Your task to perform on an android device: allow notifications from all sites in the chrome app Image 0: 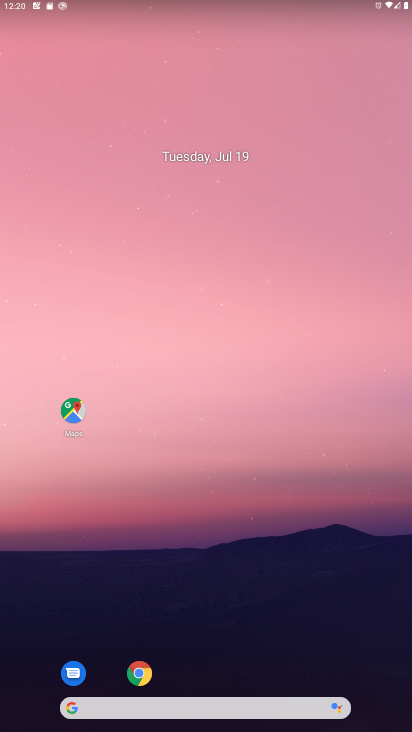
Step 0: click (144, 661)
Your task to perform on an android device: allow notifications from all sites in the chrome app Image 1: 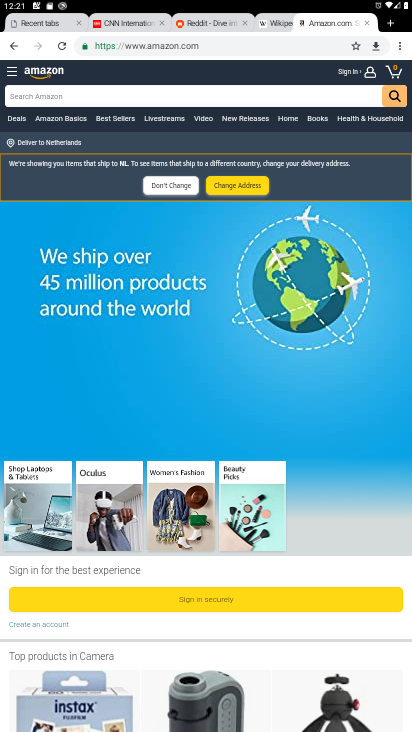
Step 1: press home button
Your task to perform on an android device: allow notifications from all sites in the chrome app Image 2: 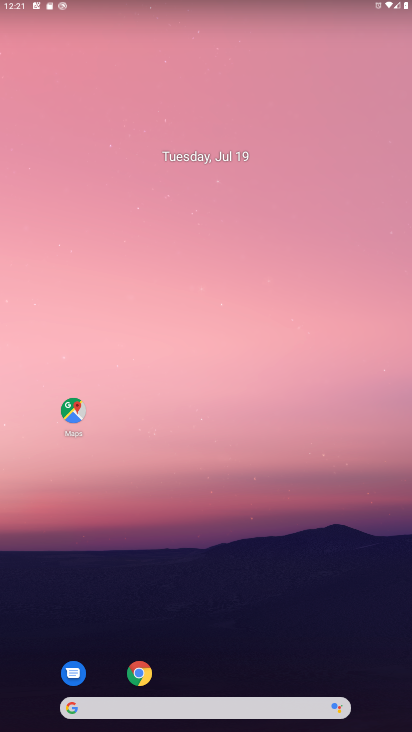
Step 2: click (145, 669)
Your task to perform on an android device: allow notifications from all sites in the chrome app Image 3: 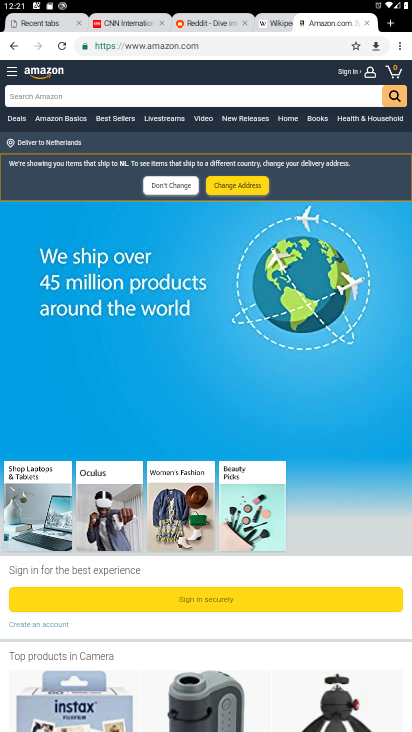
Step 3: click (394, 43)
Your task to perform on an android device: allow notifications from all sites in the chrome app Image 4: 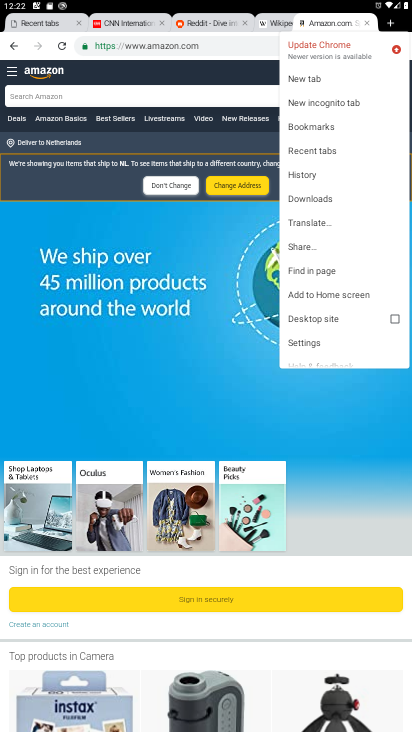
Step 4: click (318, 338)
Your task to perform on an android device: allow notifications from all sites in the chrome app Image 5: 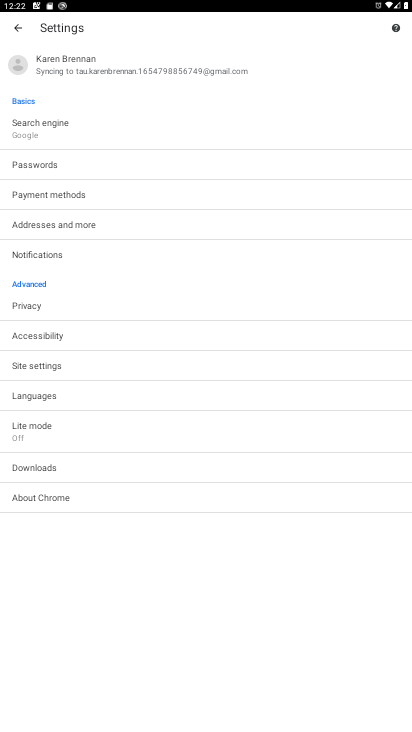
Step 5: click (89, 361)
Your task to perform on an android device: allow notifications from all sites in the chrome app Image 6: 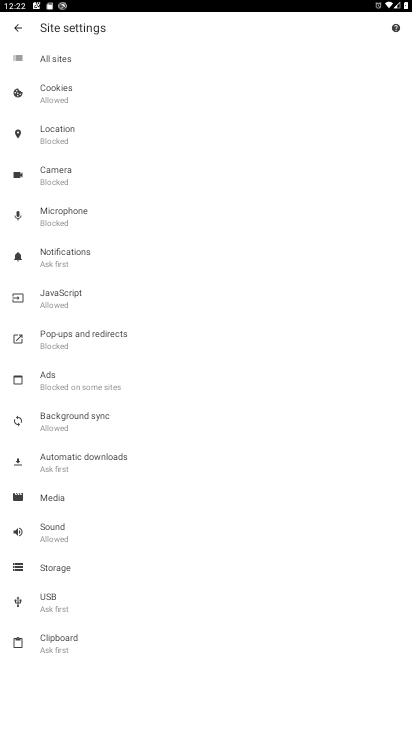
Step 6: click (84, 63)
Your task to perform on an android device: allow notifications from all sites in the chrome app Image 7: 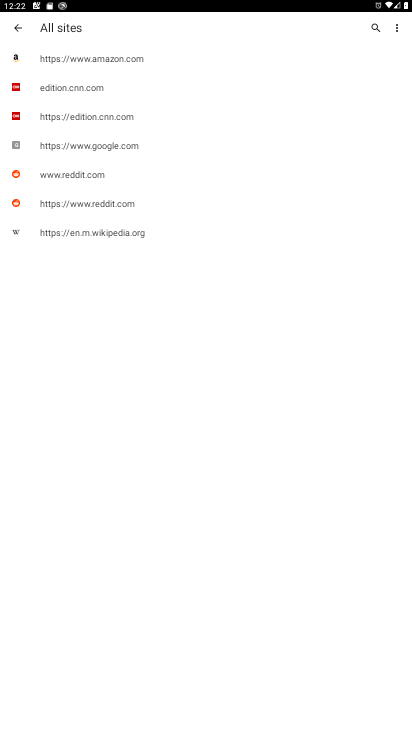
Step 7: click (103, 145)
Your task to perform on an android device: allow notifications from all sites in the chrome app Image 8: 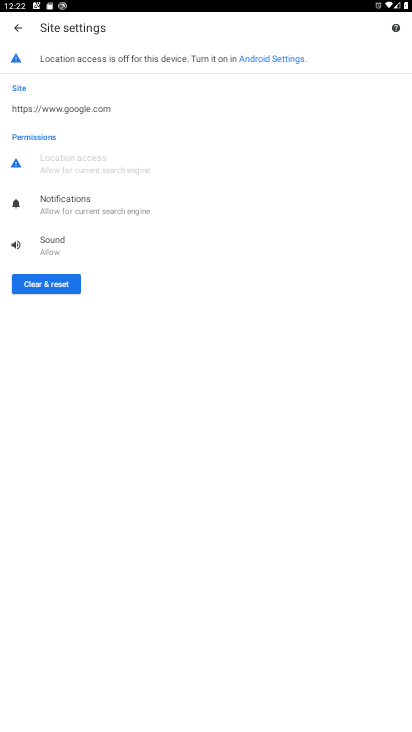
Step 8: click (95, 206)
Your task to perform on an android device: allow notifications from all sites in the chrome app Image 9: 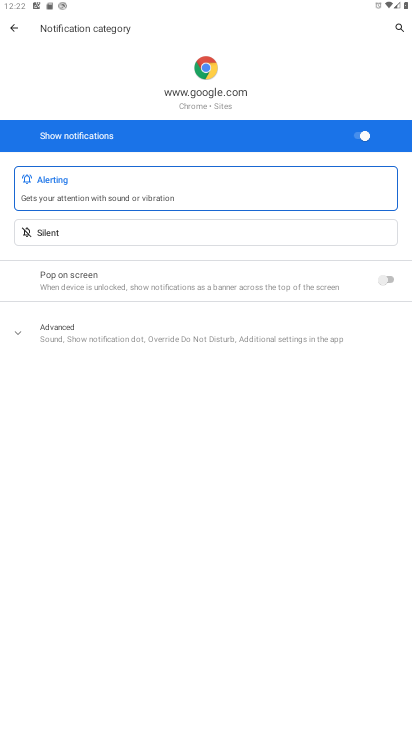
Step 9: task complete